Your task to perform on an android device: set an alarm Image 0: 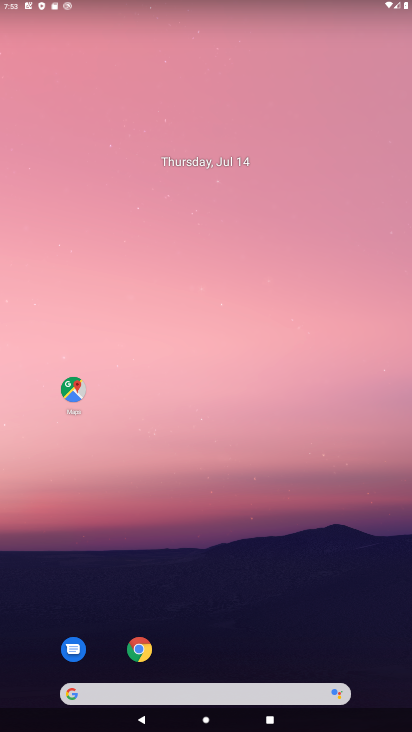
Step 0: press home button
Your task to perform on an android device: set an alarm Image 1: 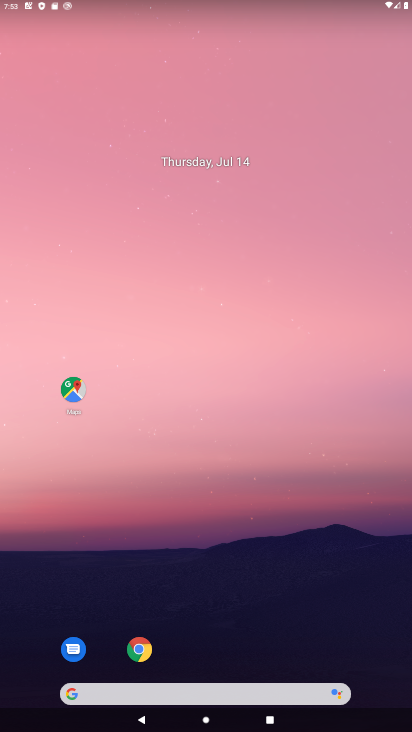
Step 1: drag from (216, 655) to (233, 40)
Your task to perform on an android device: set an alarm Image 2: 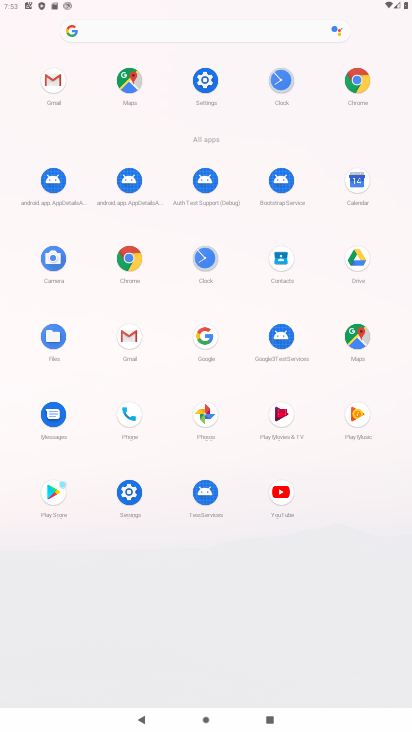
Step 2: click (204, 255)
Your task to perform on an android device: set an alarm Image 3: 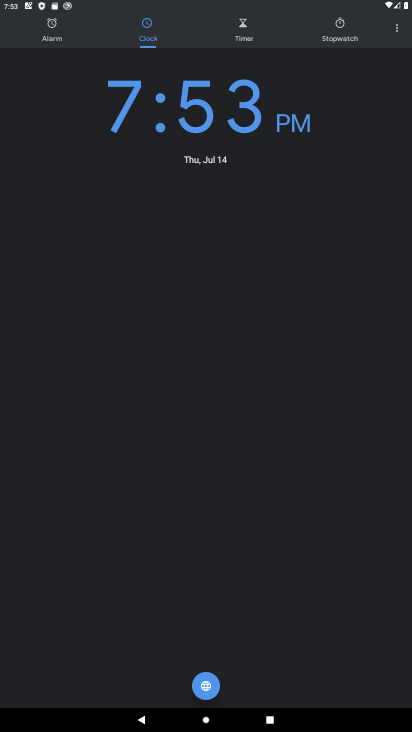
Step 3: click (50, 32)
Your task to perform on an android device: set an alarm Image 4: 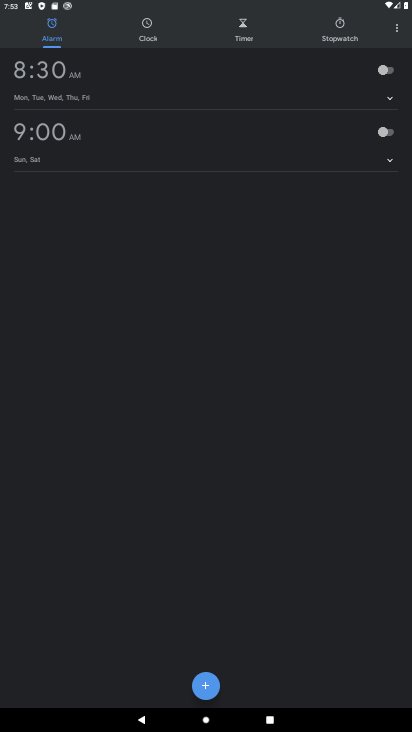
Step 4: click (390, 70)
Your task to perform on an android device: set an alarm Image 5: 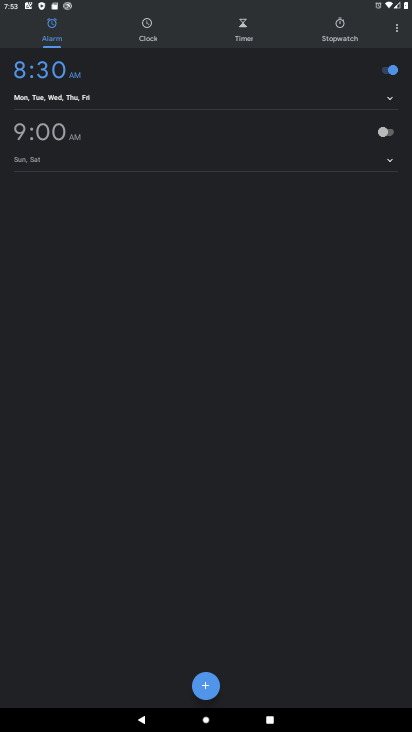
Step 5: click (390, 131)
Your task to perform on an android device: set an alarm Image 6: 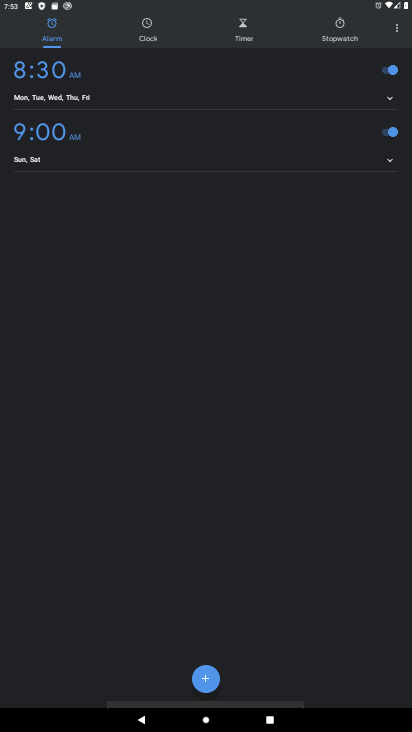
Step 6: task complete